Your task to perform on an android device: turn off airplane mode Image 0: 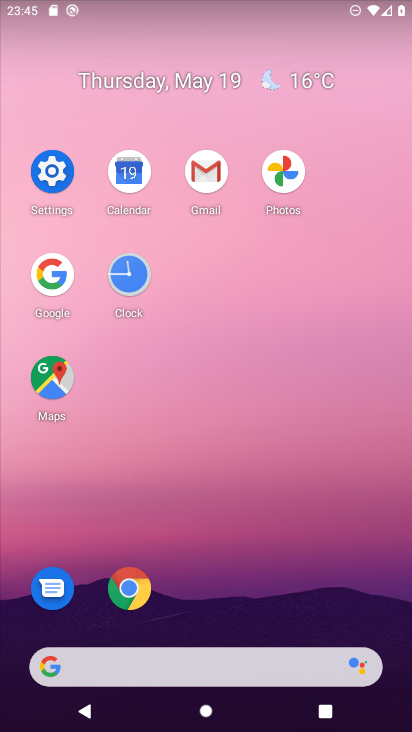
Step 0: click (52, 149)
Your task to perform on an android device: turn off airplane mode Image 1: 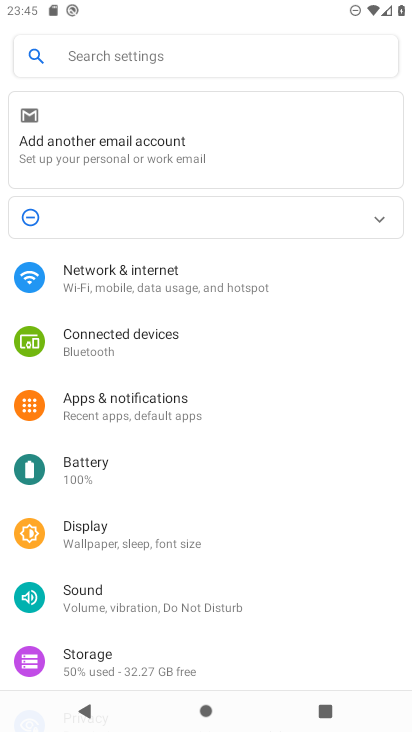
Step 1: click (185, 279)
Your task to perform on an android device: turn off airplane mode Image 2: 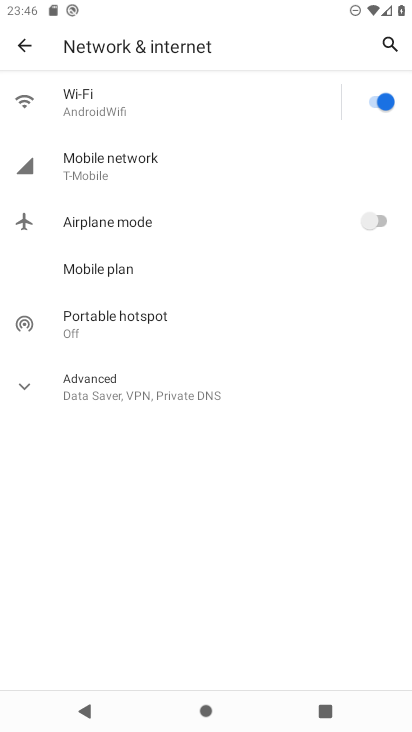
Step 2: task complete